Your task to perform on an android device: Open settings Image 0: 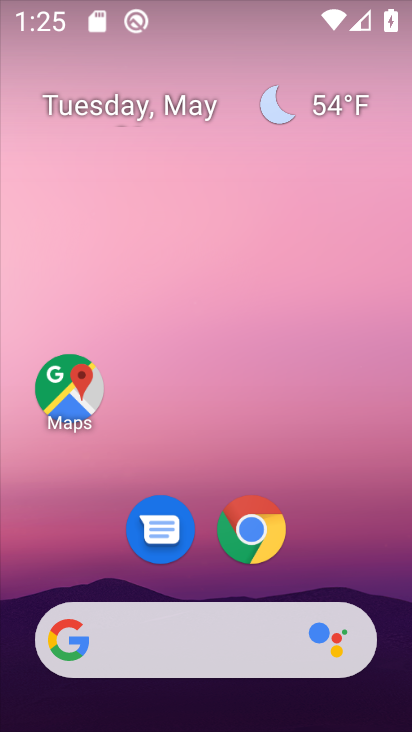
Step 0: drag from (289, 527) to (315, 251)
Your task to perform on an android device: Open settings Image 1: 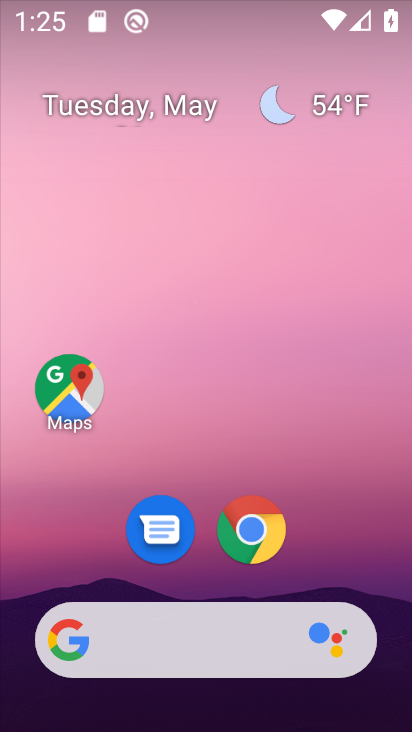
Step 1: drag from (338, 533) to (300, 214)
Your task to perform on an android device: Open settings Image 2: 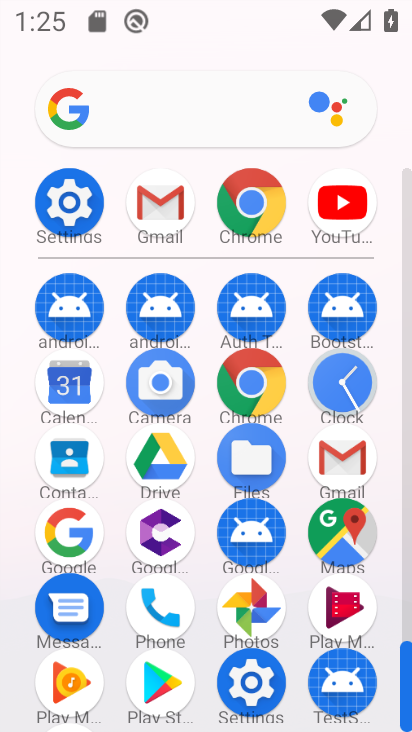
Step 2: click (57, 201)
Your task to perform on an android device: Open settings Image 3: 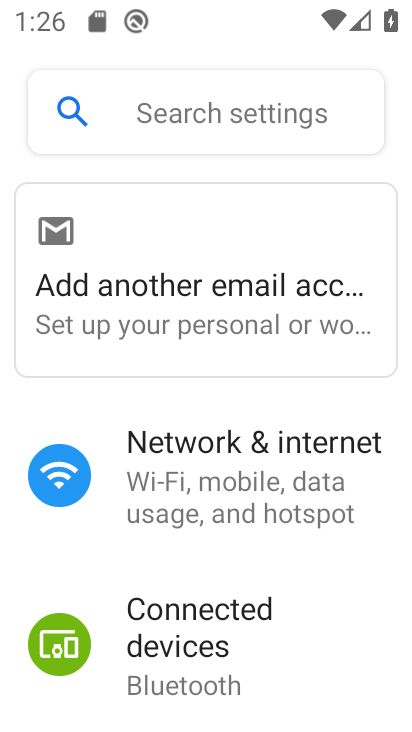
Step 3: task complete